Your task to perform on an android device: What's the weather going to be this weekend? Image 0: 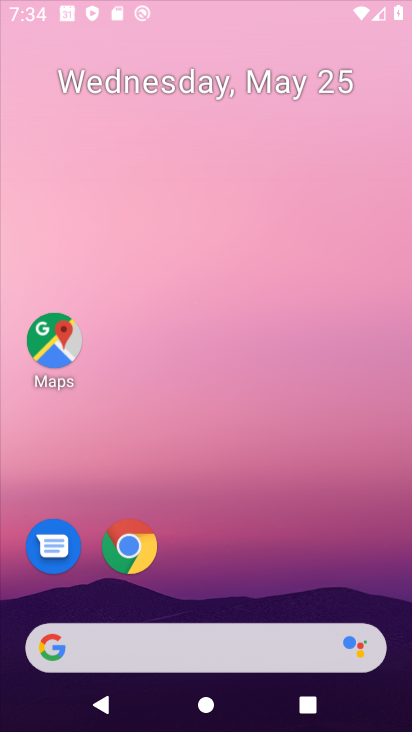
Step 0: click (379, 154)
Your task to perform on an android device: What's the weather going to be this weekend? Image 1: 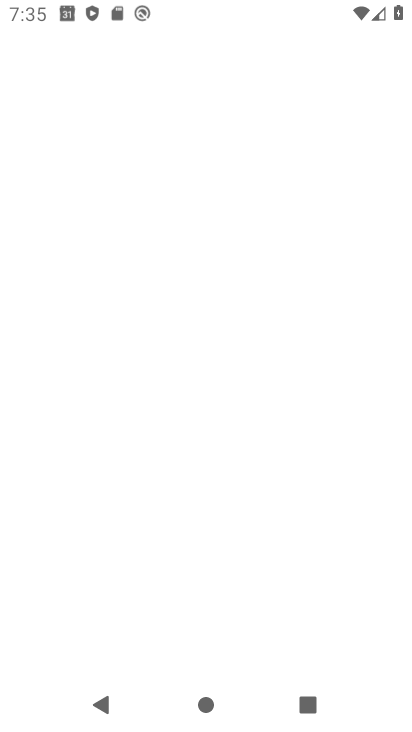
Step 1: press home button
Your task to perform on an android device: What's the weather going to be this weekend? Image 2: 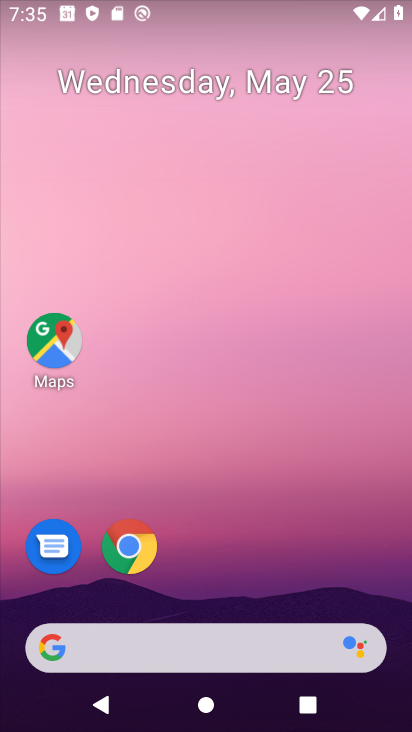
Step 2: click (183, 642)
Your task to perform on an android device: What's the weather going to be this weekend? Image 3: 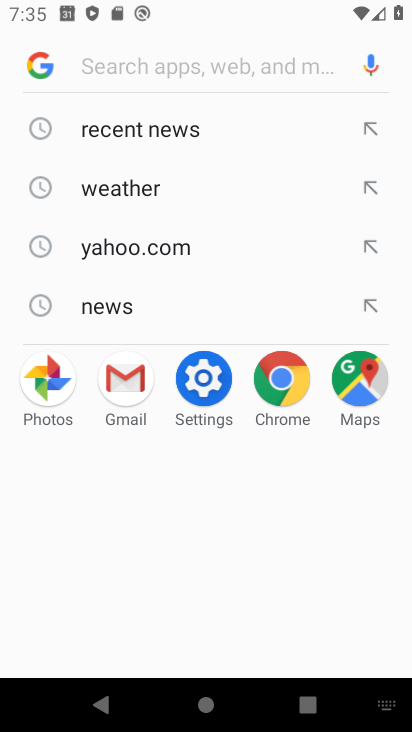
Step 3: click (147, 187)
Your task to perform on an android device: What's the weather going to be this weekend? Image 4: 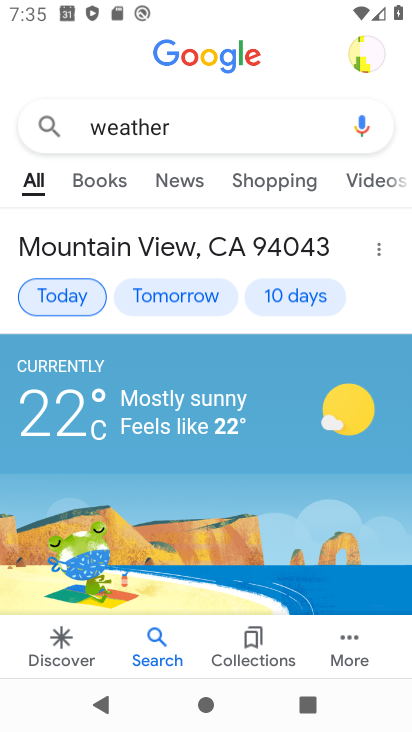
Step 4: click (301, 291)
Your task to perform on an android device: What's the weather going to be this weekend? Image 5: 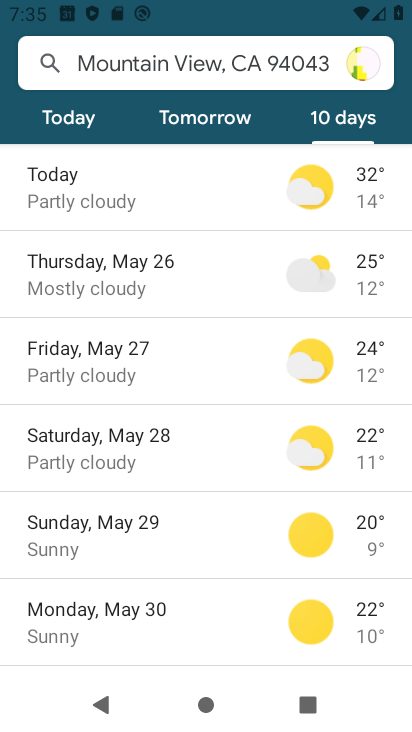
Step 5: drag from (250, 493) to (252, 407)
Your task to perform on an android device: What's the weather going to be this weekend? Image 6: 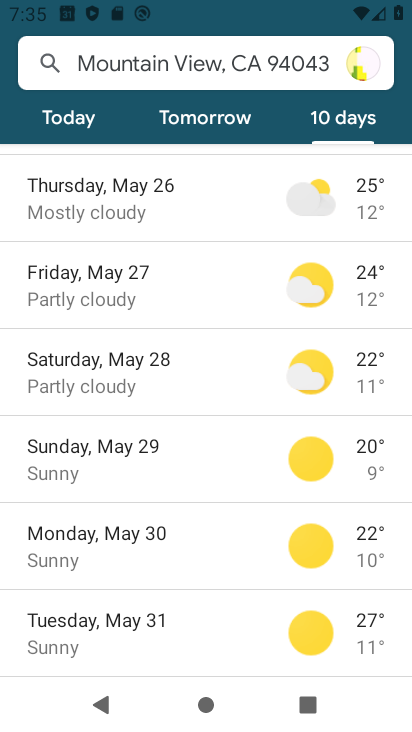
Step 6: click (223, 364)
Your task to perform on an android device: What's the weather going to be this weekend? Image 7: 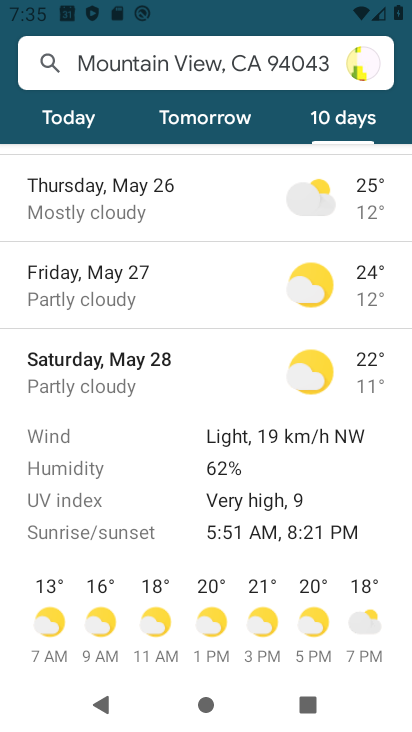
Step 7: drag from (233, 471) to (267, 263)
Your task to perform on an android device: What's the weather going to be this weekend? Image 8: 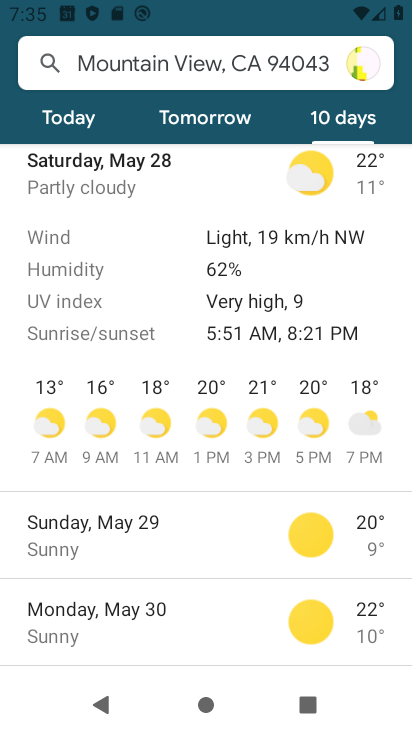
Step 8: click (246, 544)
Your task to perform on an android device: What's the weather going to be this weekend? Image 9: 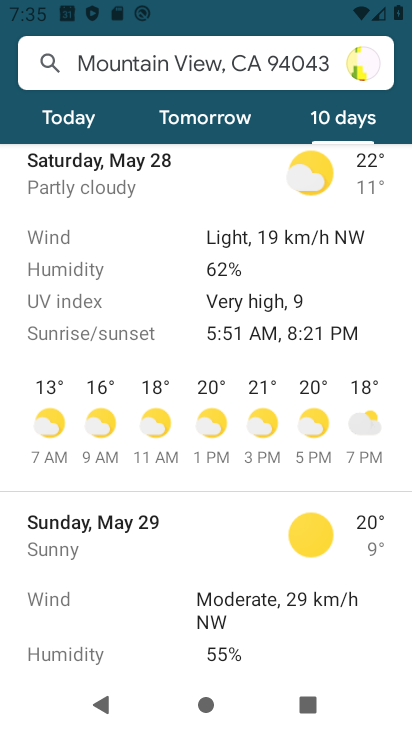
Step 9: task complete